Your task to perform on an android device: find photos in the google photos app Image 0: 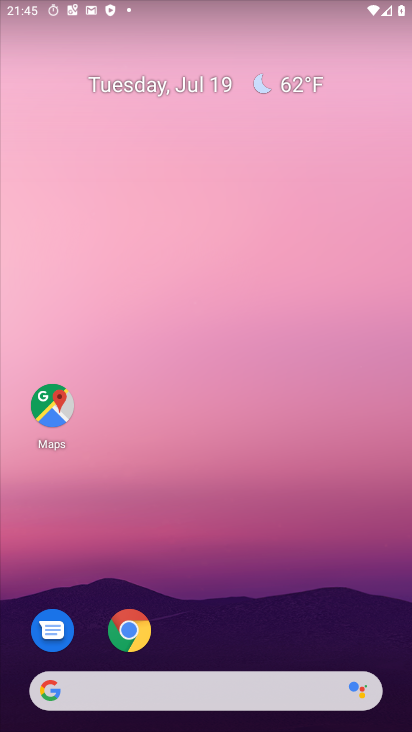
Step 0: drag from (38, 688) to (275, 10)
Your task to perform on an android device: find photos in the google photos app Image 1: 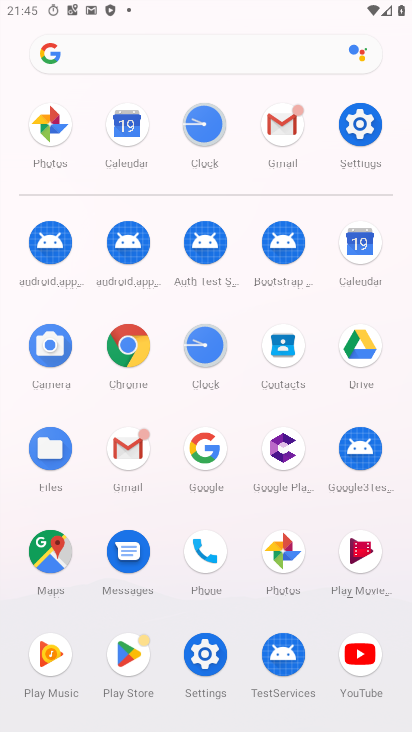
Step 1: click (294, 565)
Your task to perform on an android device: find photos in the google photos app Image 2: 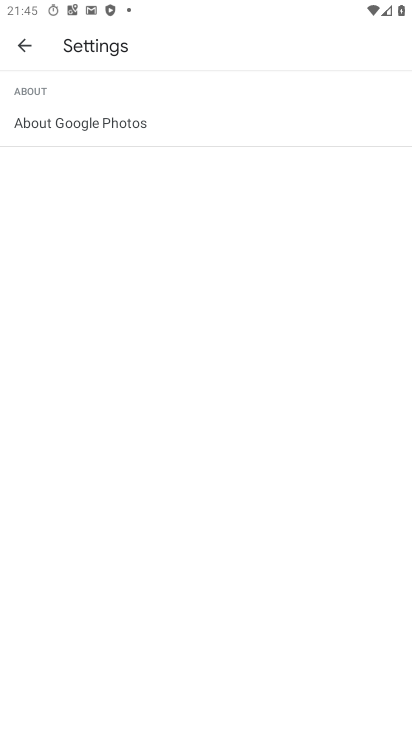
Step 2: click (25, 36)
Your task to perform on an android device: find photos in the google photos app Image 3: 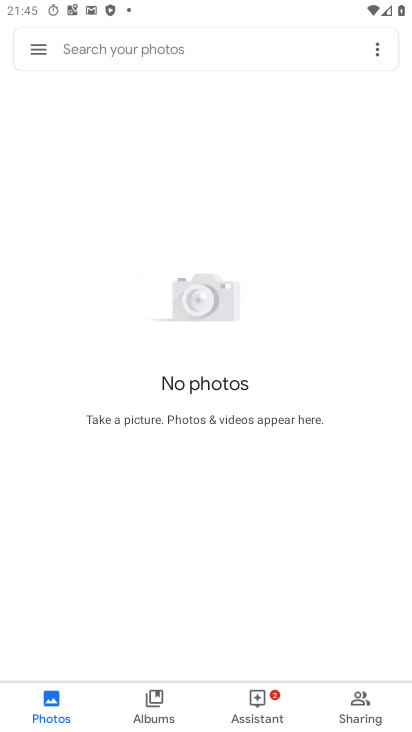
Step 3: click (40, 53)
Your task to perform on an android device: find photos in the google photos app Image 4: 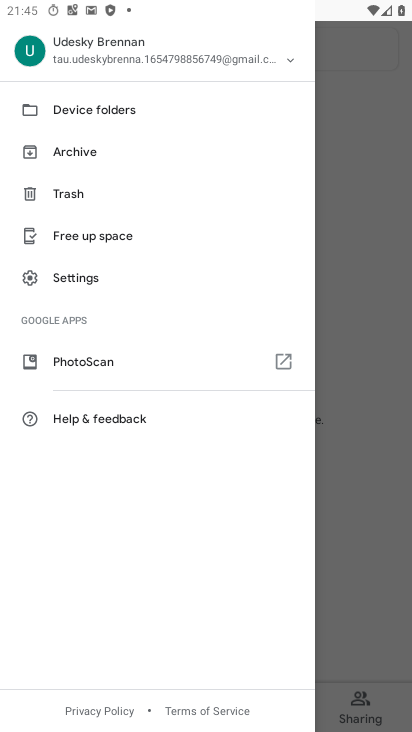
Step 4: click (373, 313)
Your task to perform on an android device: find photos in the google photos app Image 5: 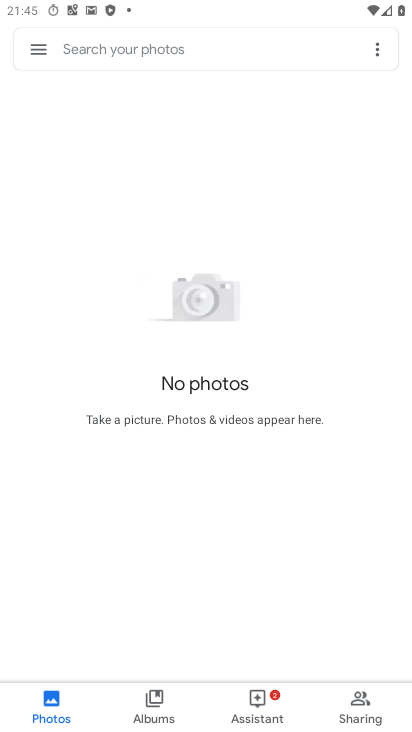
Step 5: task complete